Your task to perform on an android device: check storage Image 0: 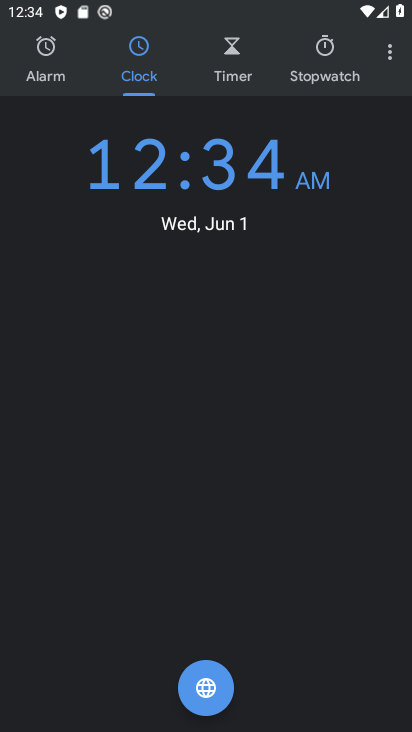
Step 0: press home button
Your task to perform on an android device: check storage Image 1: 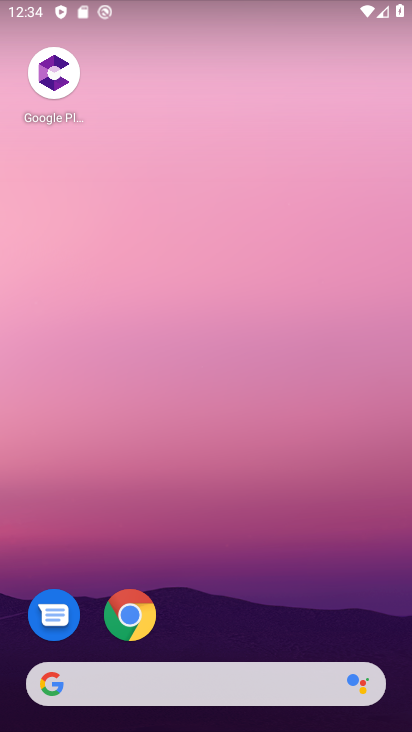
Step 1: drag from (198, 656) to (297, 149)
Your task to perform on an android device: check storage Image 2: 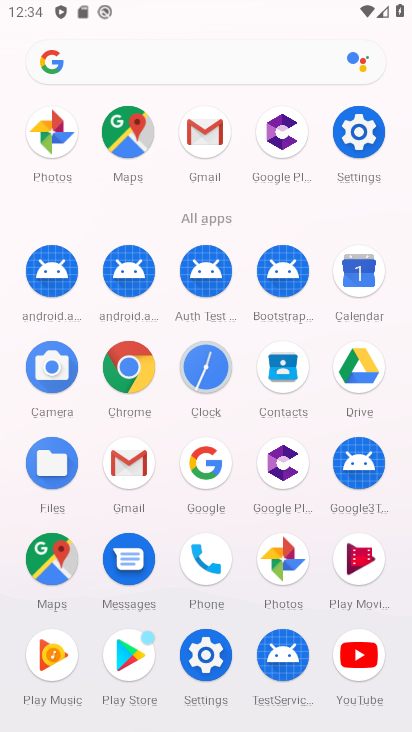
Step 2: click (204, 677)
Your task to perform on an android device: check storage Image 3: 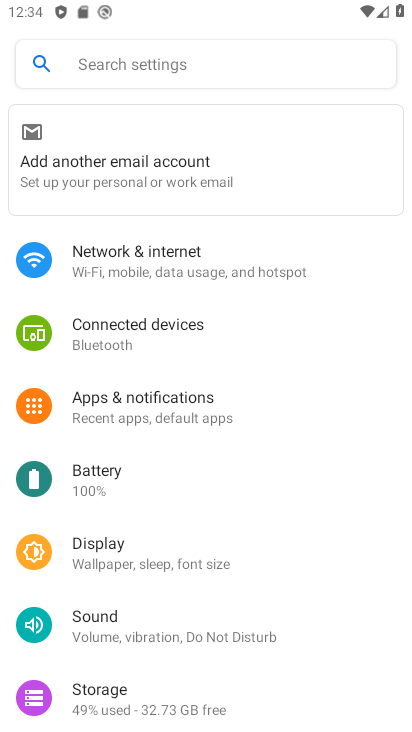
Step 3: drag from (139, 600) to (207, 352)
Your task to perform on an android device: check storage Image 4: 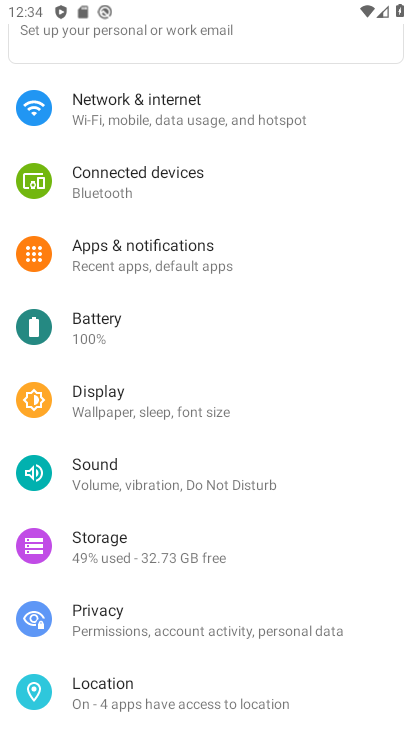
Step 4: click (148, 558)
Your task to perform on an android device: check storage Image 5: 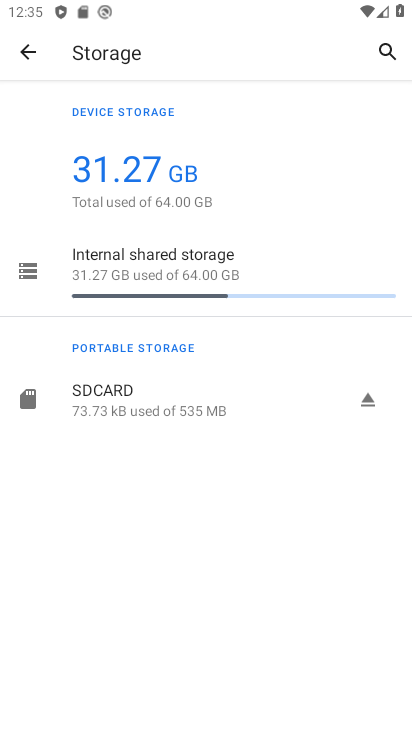
Step 5: task complete